Your task to perform on an android device: toggle javascript in the chrome app Image 0: 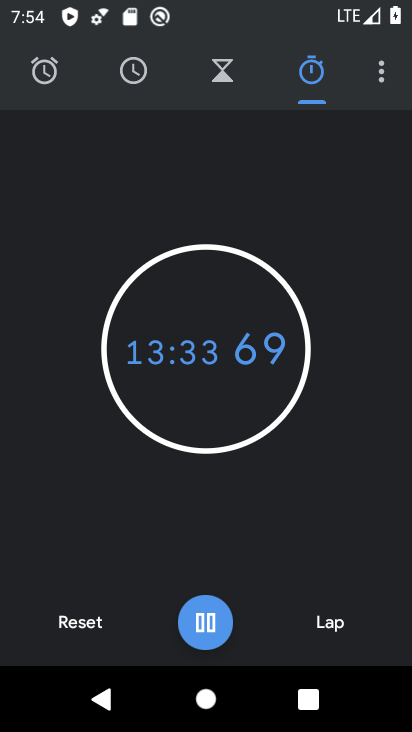
Step 0: press home button
Your task to perform on an android device: toggle javascript in the chrome app Image 1: 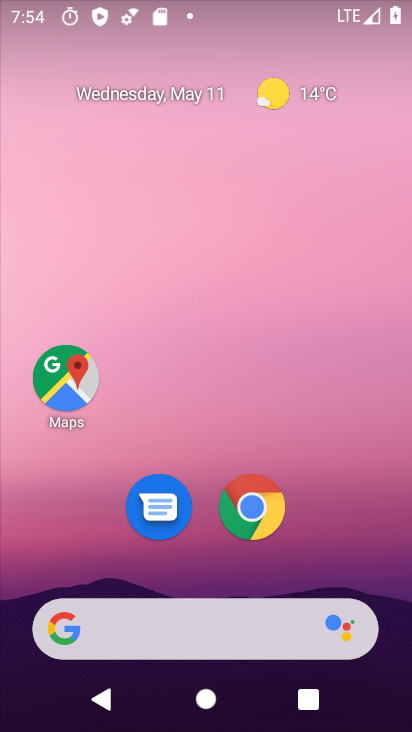
Step 1: drag from (347, 530) to (292, 1)
Your task to perform on an android device: toggle javascript in the chrome app Image 2: 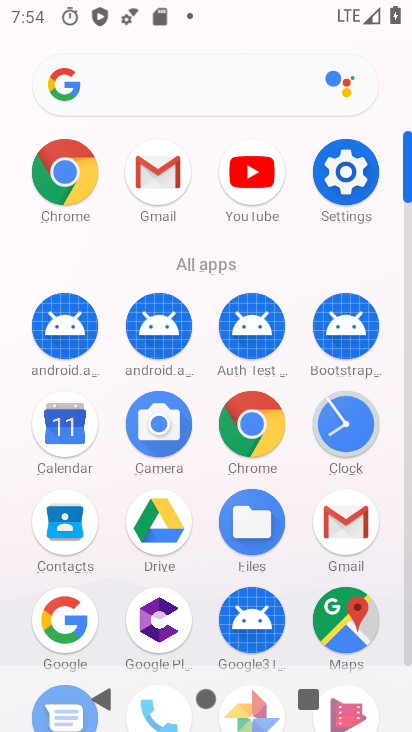
Step 2: click (47, 164)
Your task to perform on an android device: toggle javascript in the chrome app Image 3: 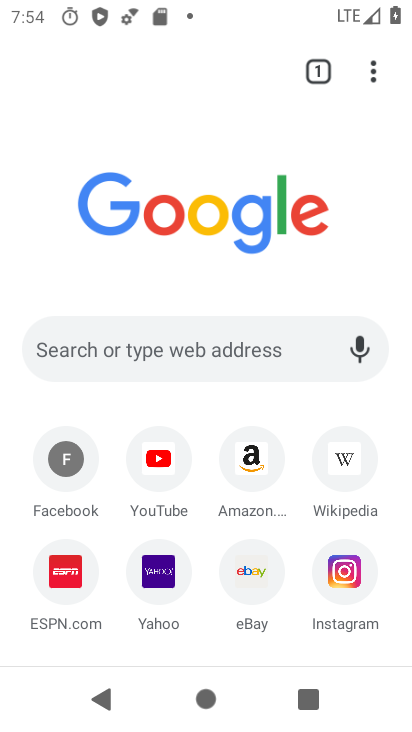
Step 3: drag from (384, 73) to (156, 486)
Your task to perform on an android device: toggle javascript in the chrome app Image 4: 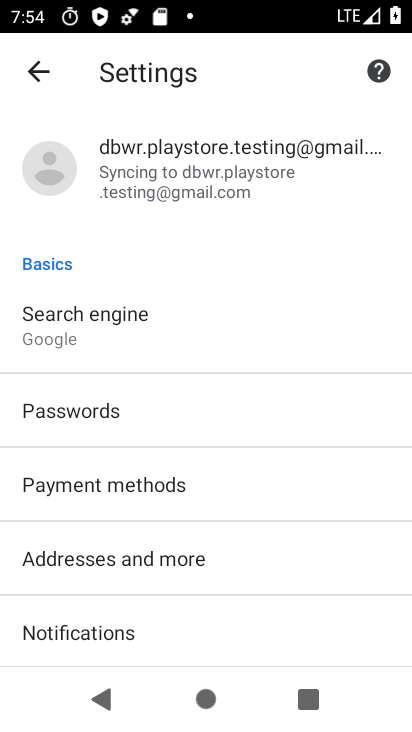
Step 4: drag from (213, 511) to (233, 276)
Your task to perform on an android device: toggle javascript in the chrome app Image 5: 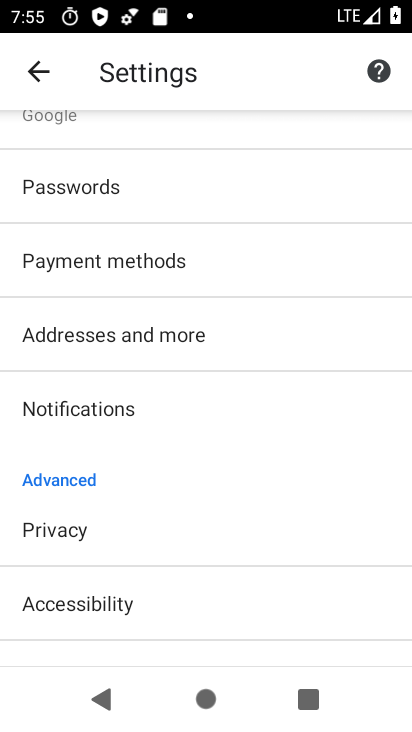
Step 5: drag from (224, 653) to (232, 227)
Your task to perform on an android device: toggle javascript in the chrome app Image 6: 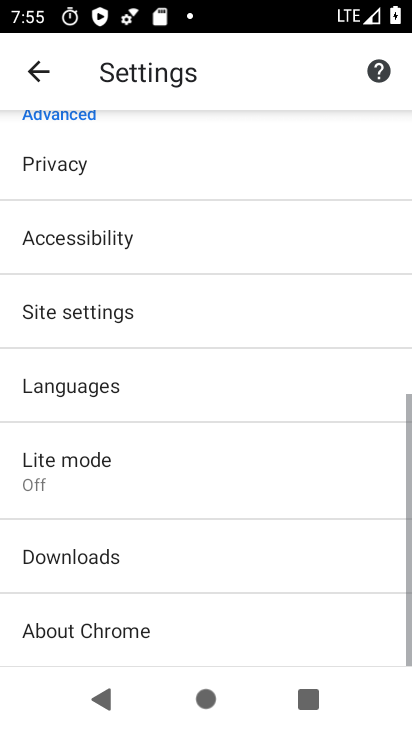
Step 6: drag from (154, 539) to (232, 161)
Your task to perform on an android device: toggle javascript in the chrome app Image 7: 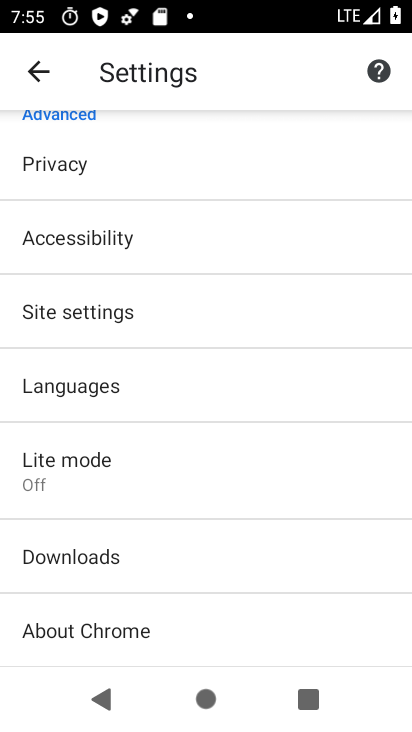
Step 7: click (131, 321)
Your task to perform on an android device: toggle javascript in the chrome app Image 8: 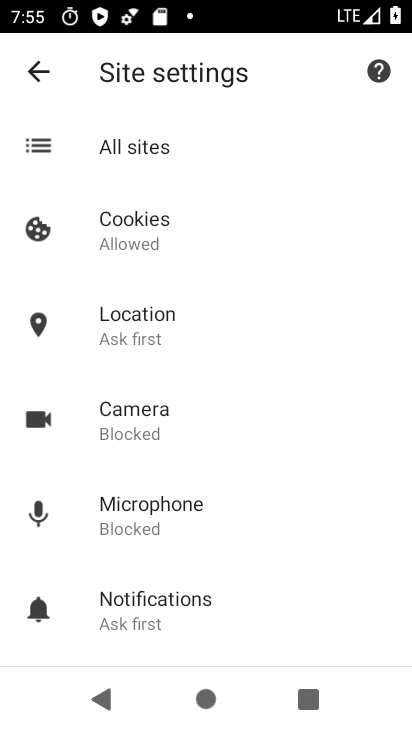
Step 8: drag from (194, 570) to (165, 163)
Your task to perform on an android device: toggle javascript in the chrome app Image 9: 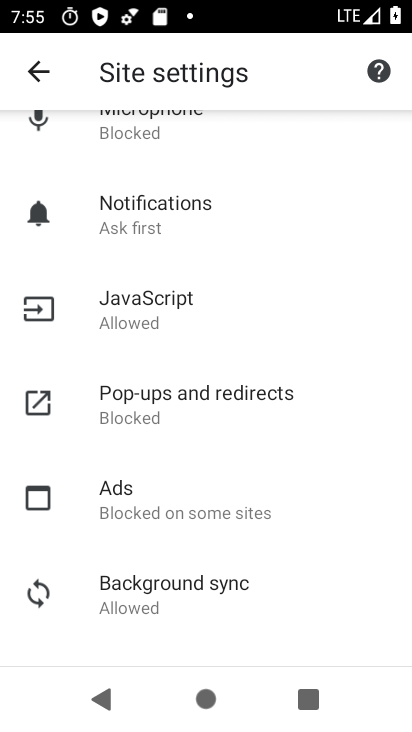
Step 9: click (143, 321)
Your task to perform on an android device: toggle javascript in the chrome app Image 10: 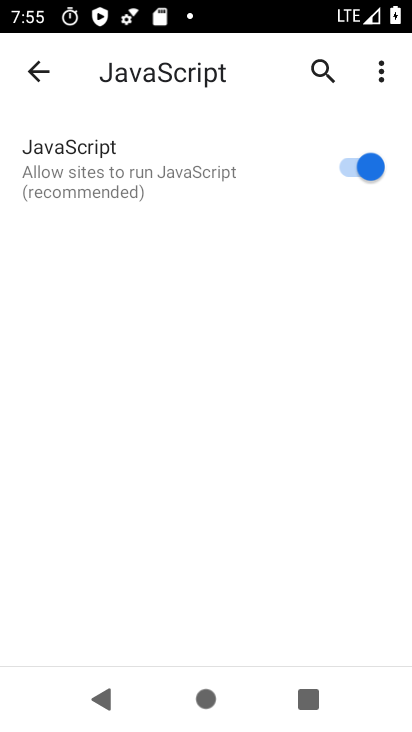
Step 10: click (363, 172)
Your task to perform on an android device: toggle javascript in the chrome app Image 11: 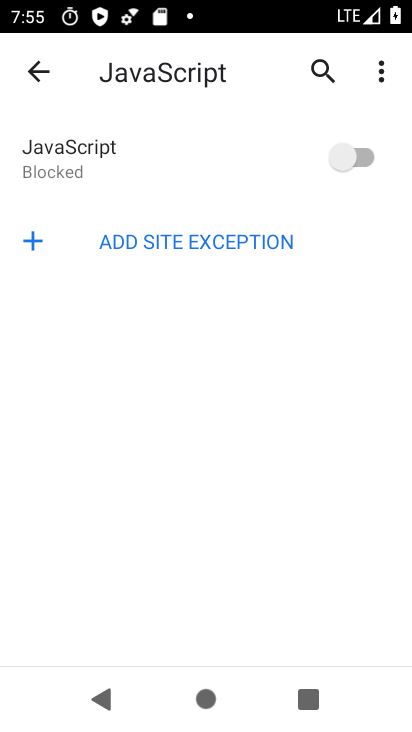
Step 11: task complete